Your task to perform on an android device: What is the recent news? Image 0: 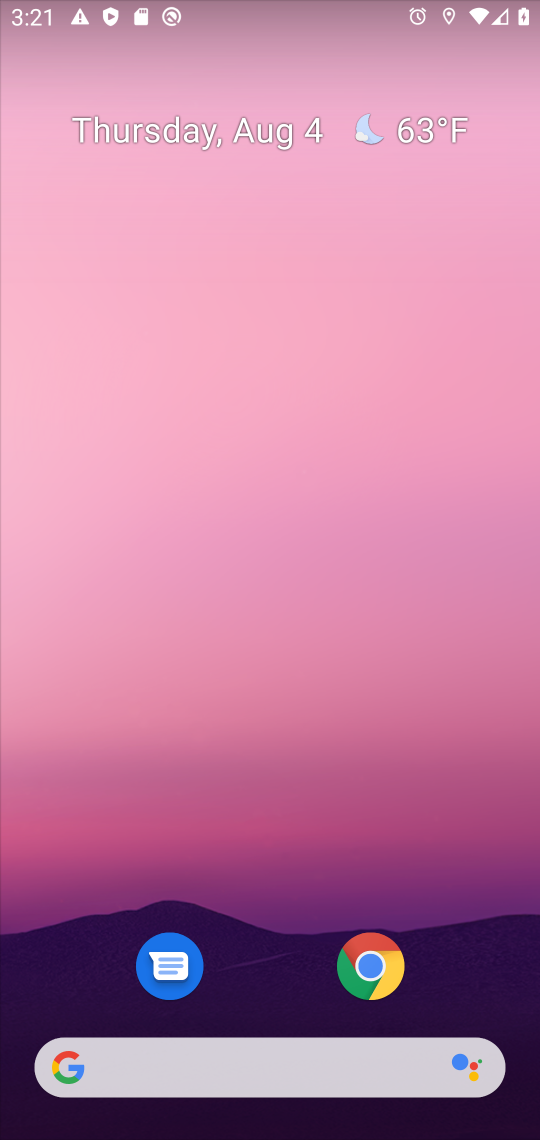
Step 0: press home button
Your task to perform on an android device: What is the recent news? Image 1: 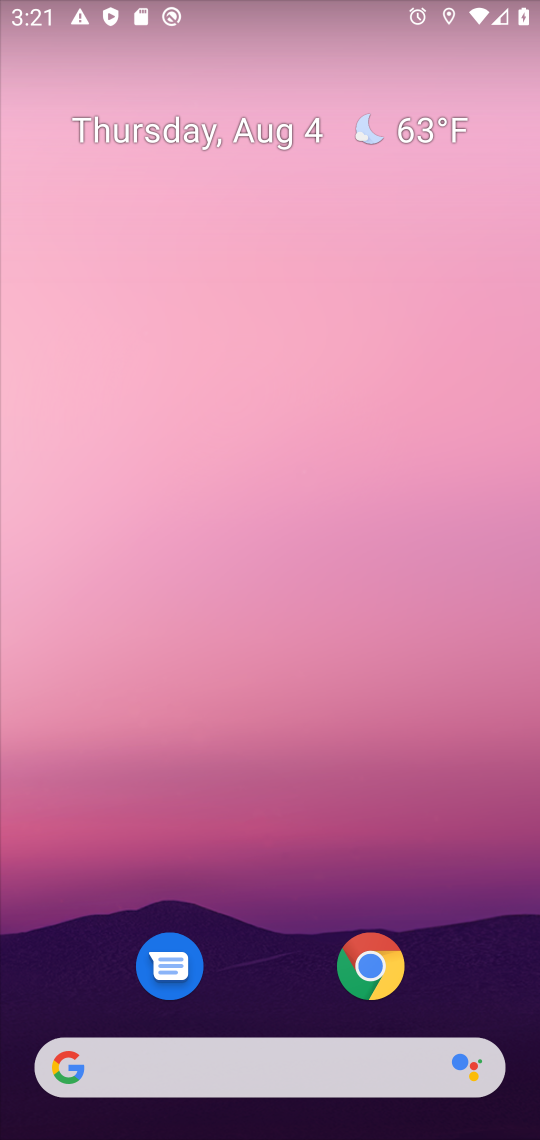
Step 1: click (62, 1082)
Your task to perform on an android device: What is the recent news? Image 2: 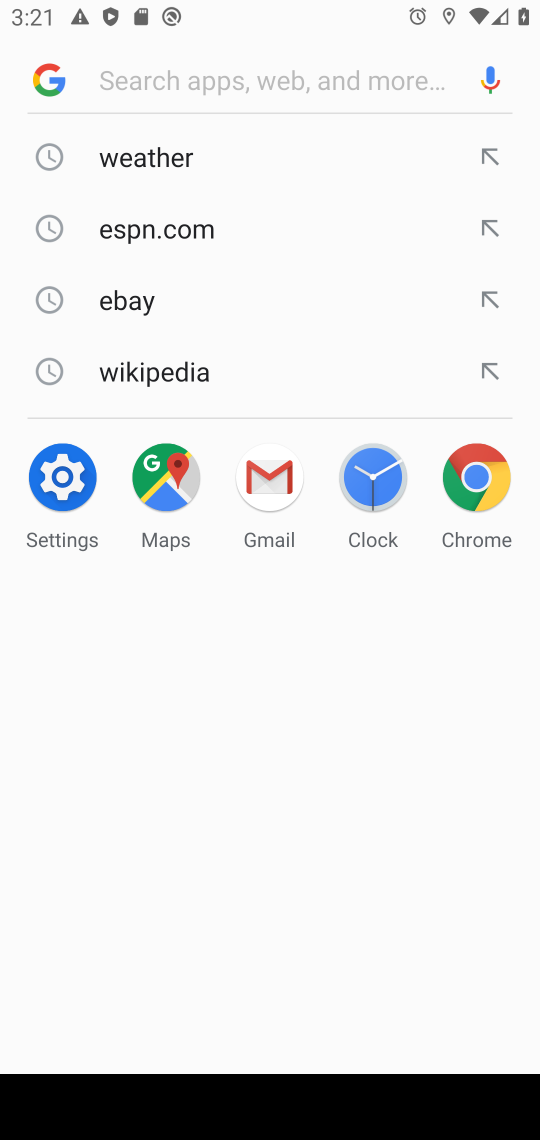
Step 2: type "recent news?"
Your task to perform on an android device: What is the recent news? Image 3: 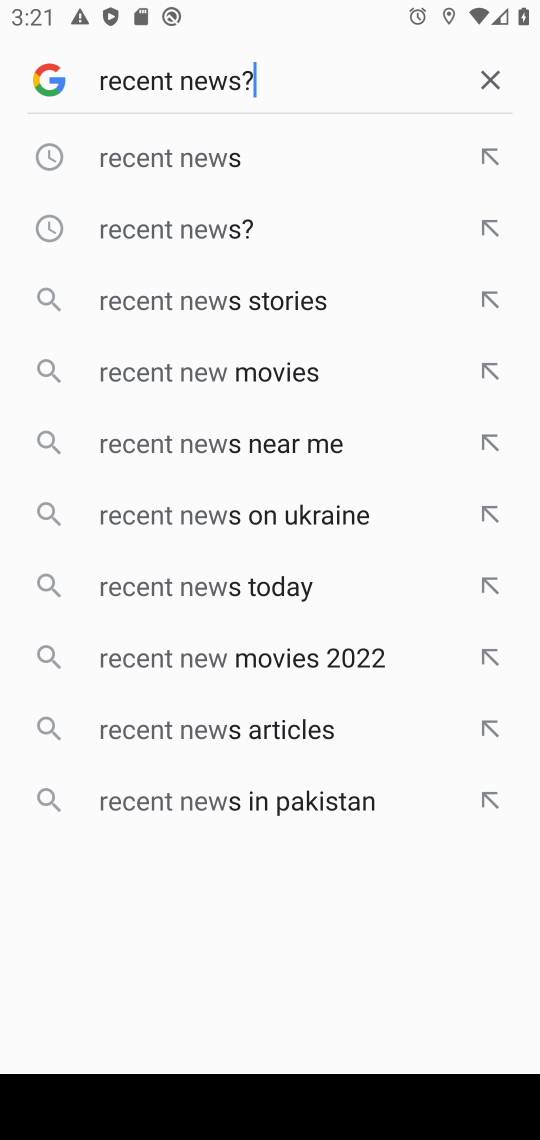
Step 3: press enter
Your task to perform on an android device: What is the recent news? Image 4: 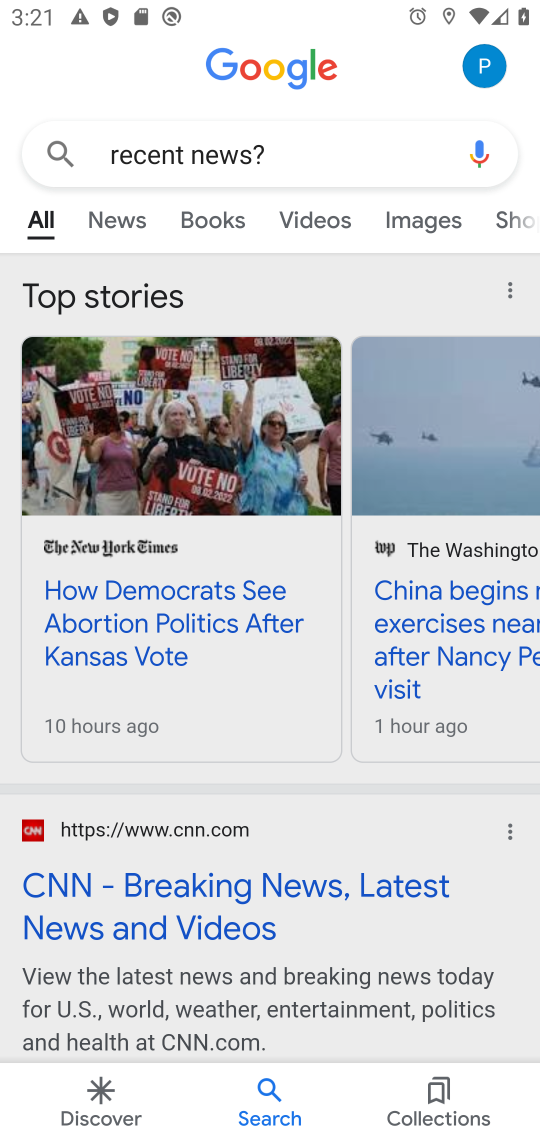
Step 4: task complete